Your task to perform on an android device: Open the phone app and click the voicemail tab. Image 0: 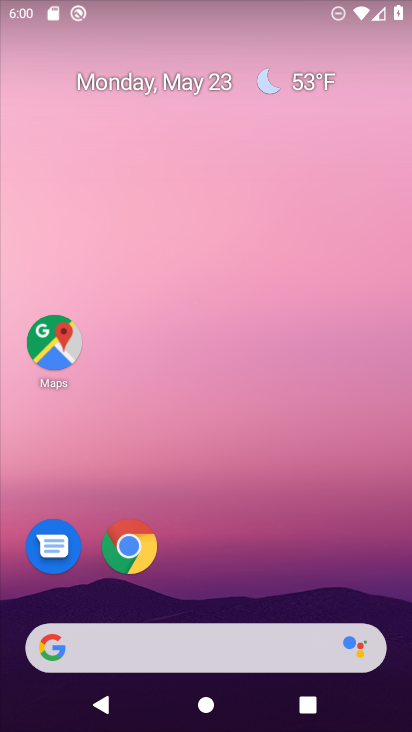
Step 0: drag from (275, 577) to (243, 127)
Your task to perform on an android device: Open the phone app and click the voicemail tab. Image 1: 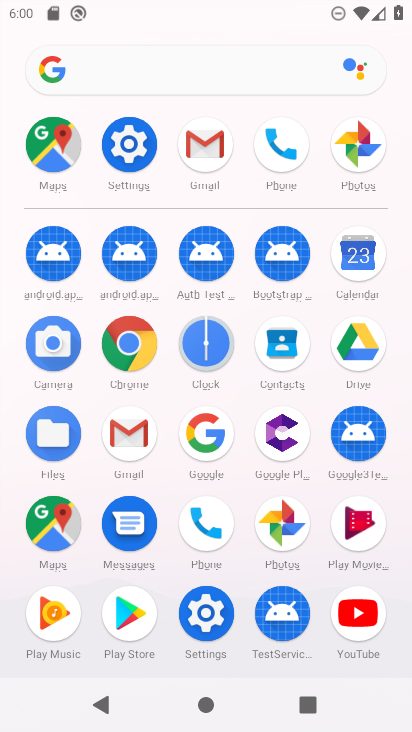
Step 1: click (200, 526)
Your task to perform on an android device: Open the phone app and click the voicemail tab. Image 2: 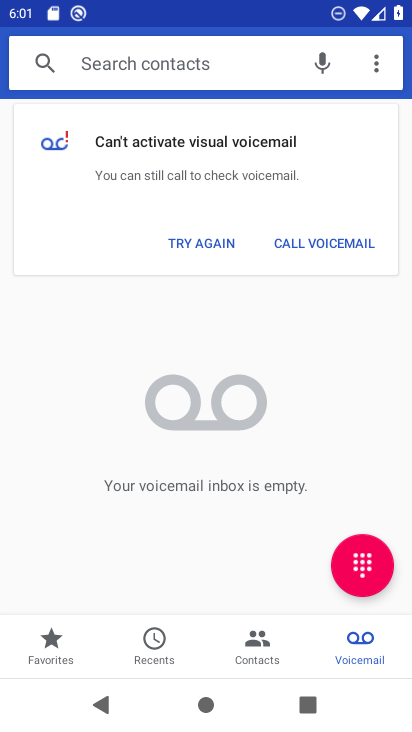
Step 2: task complete